Your task to perform on an android device: open a bookmark in the chrome app Image 0: 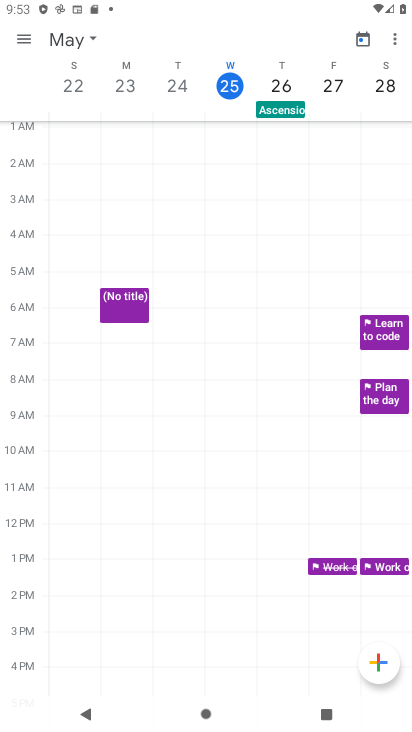
Step 0: press home button
Your task to perform on an android device: open a bookmark in the chrome app Image 1: 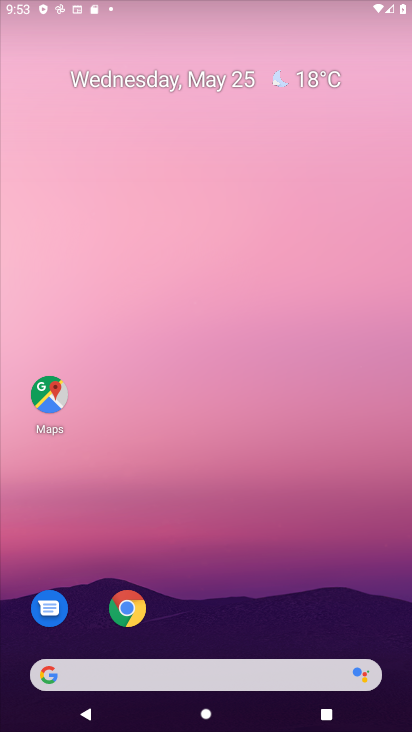
Step 1: click (140, 610)
Your task to perform on an android device: open a bookmark in the chrome app Image 2: 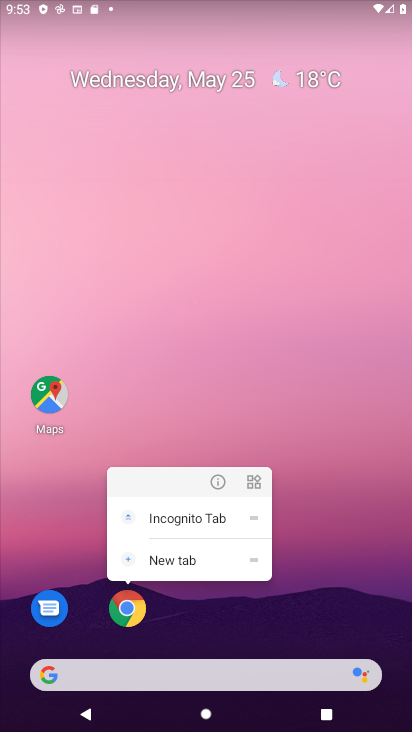
Step 2: click (129, 607)
Your task to perform on an android device: open a bookmark in the chrome app Image 3: 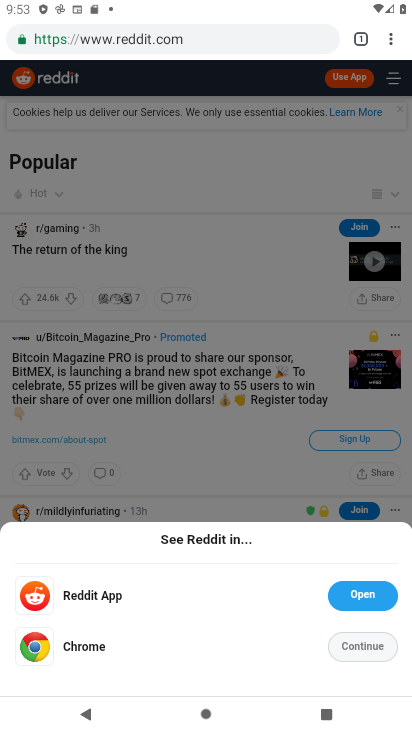
Step 3: click (387, 37)
Your task to perform on an android device: open a bookmark in the chrome app Image 4: 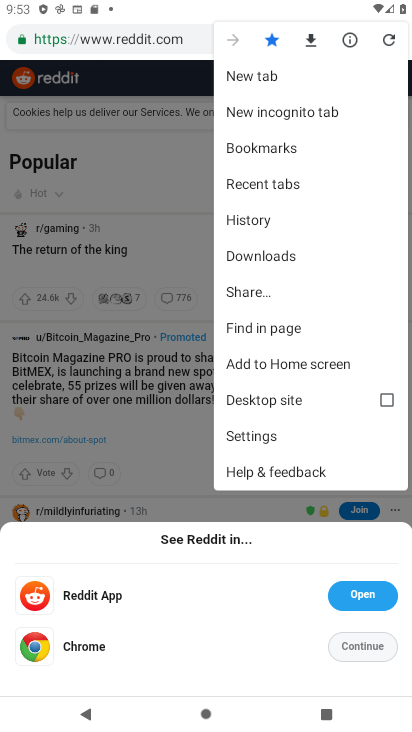
Step 4: click (278, 137)
Your task to perform on an android device: open a bookmark in the chrome app Image 5: 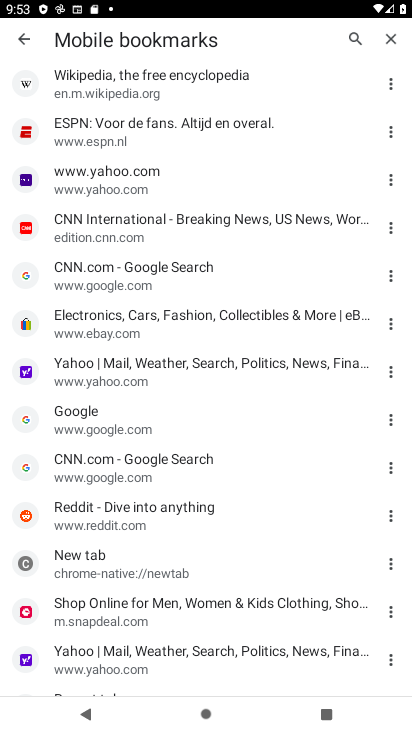
Step 5: click (204, 236)
Your task to perform on an android device: open a bookmark in the chrome app Image 6: 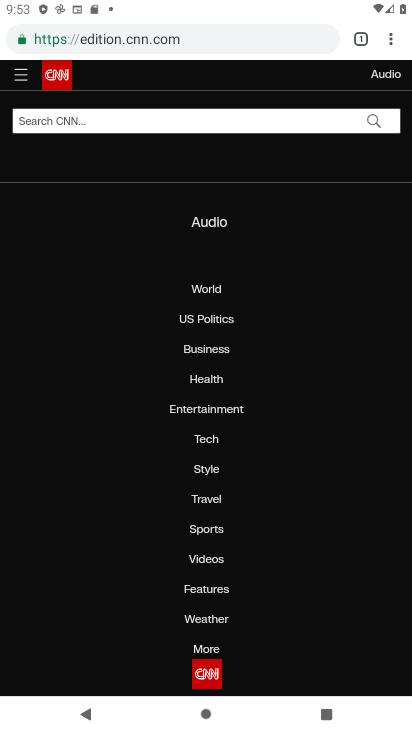
Step 6: task complete